Your task to perform on an android device: turn on priority inbox in the gmail app Image 0: 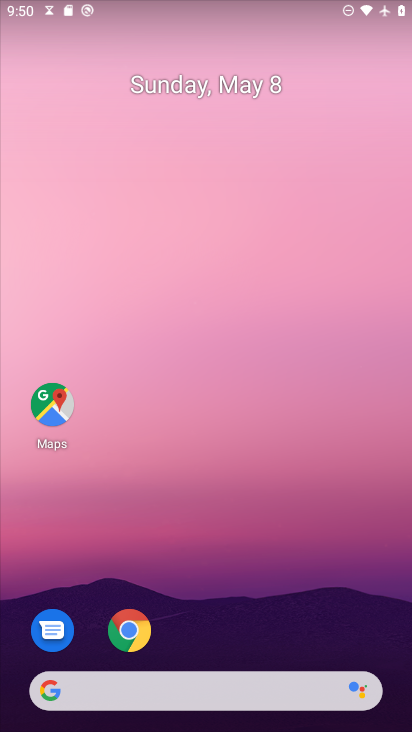
Step 0: drag from (142, 695) to (278, 231)
Your task to perform on an android device: turn on priority inbox in the gmail app Image 1: 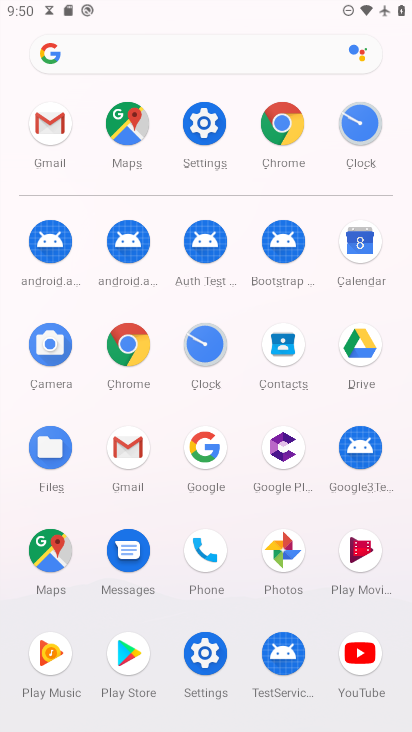
Step 1: click (50, 126)
Your task to perform on an android device: turn on priority inbox in the gmail app Image 2: 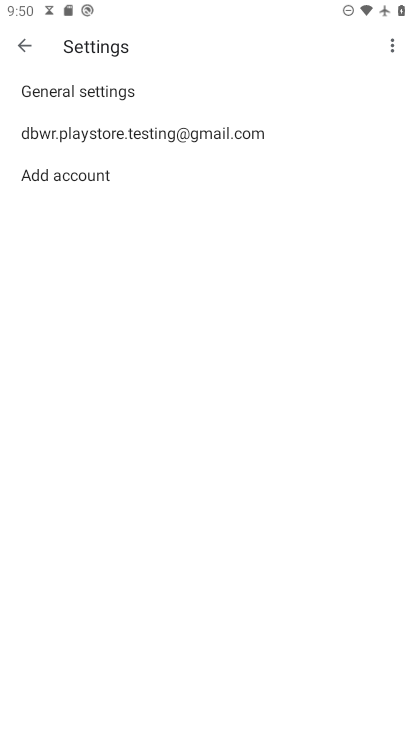
Step 2: click (89, 134)
Your task to perform on an android device: turn on priority inbox in the gmail app Image 3: 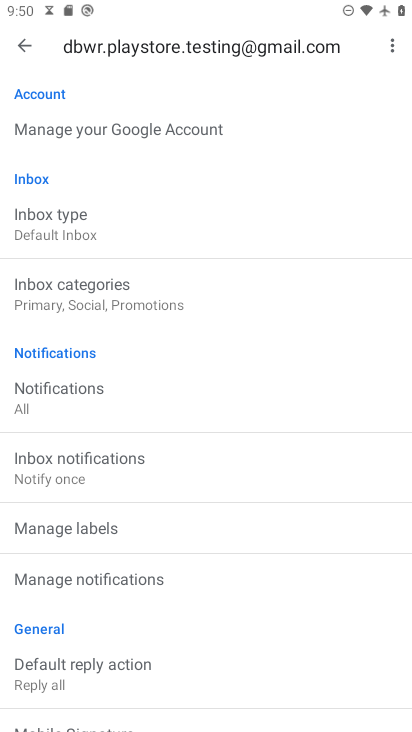
Step 3: click (48, 228)
Your task to perform on an android device: turn on priority inbox in the gmail app Image 4: 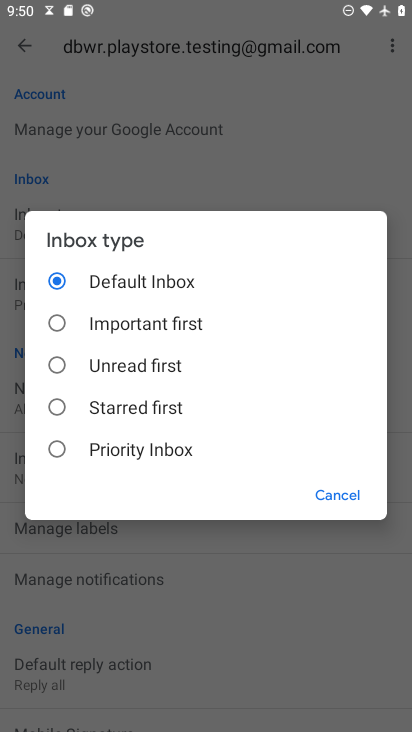
Step 4: click (54, 449)
Your task to perform on an android device: turn on priority inbox in the gmail app Image 5: 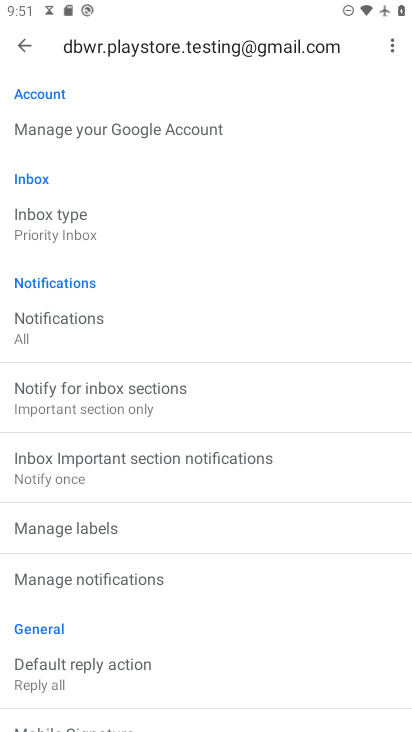
Step 5: task complete